Your task to perform on an android device: Open Yahoo.com Image 0: 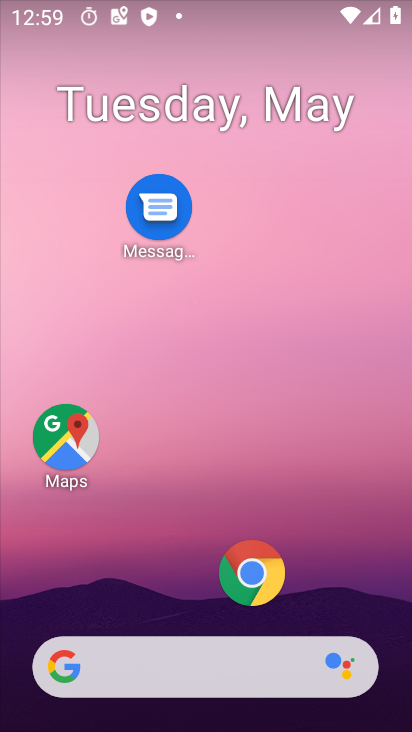
Step 0: click (272, 574)
Your task to perform on an android device: Open Yahoo.com Image 1: 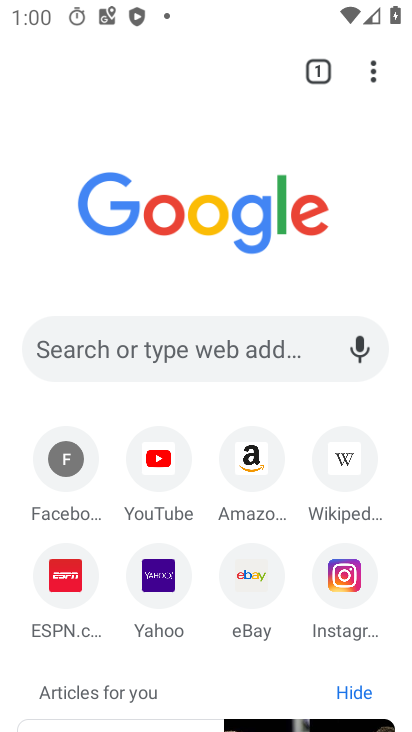
Step 1: click (162, 572)
Your task to perform on an android device: Open Yahoo.com Image 2: 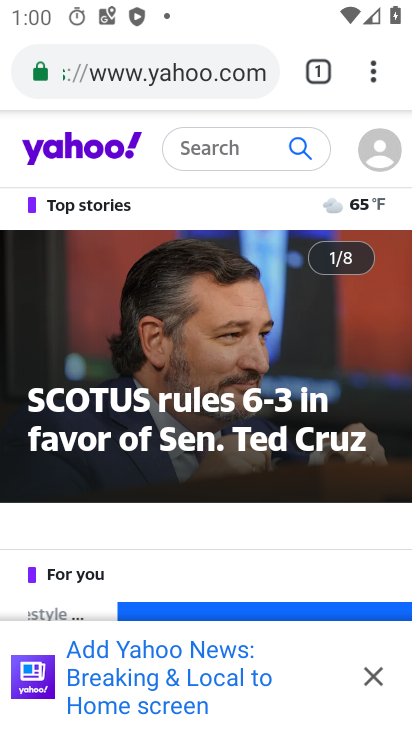
Step 2: drag from (243, 574) to (275, 370)
Your task to perform on an android device: Open Yahoo.com Image 3: 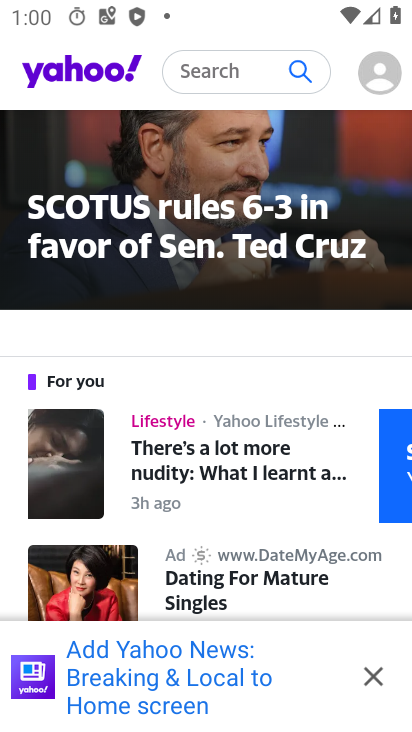
Step 3: click (372, 681)
Your task to perform on an android device: Open Yahoo.com Image 4: 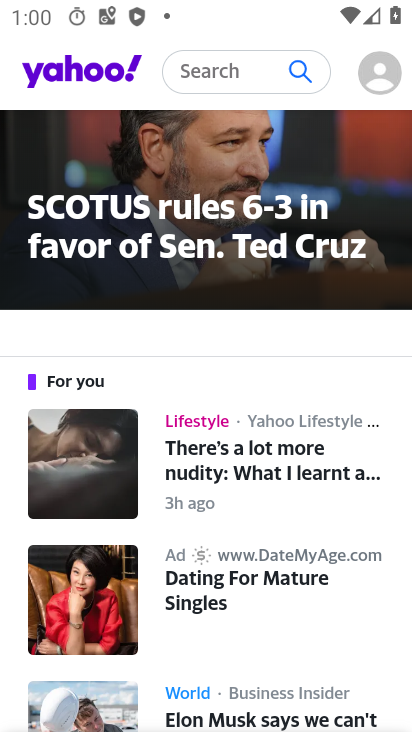
Step 4: task complete